Your task to perform on an android device: turn off translation in the chrome app Image 0: 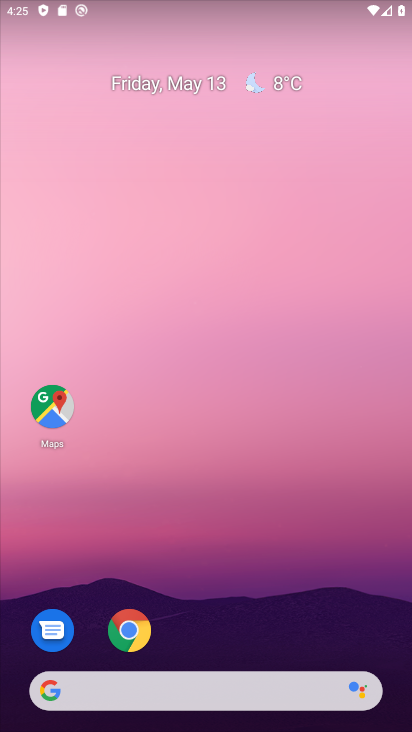
Step 0: click (141, 624)
Your task to perform on an android device: turn off translation in the chrome app Image 1: 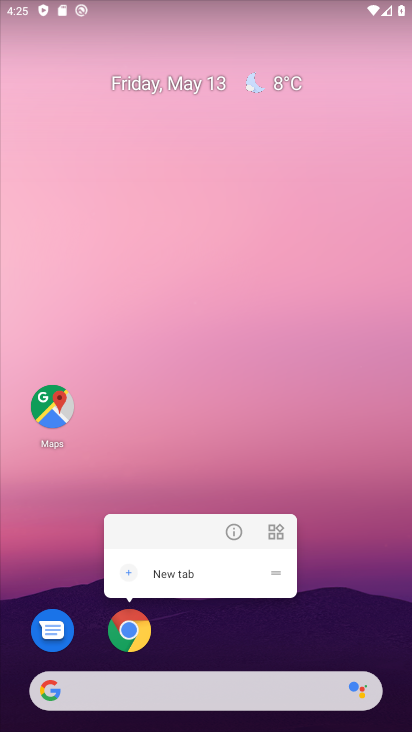
Step 1: click (123, 632)
Your task to perform on an android device: turn off translation in the chrome app Image 2: 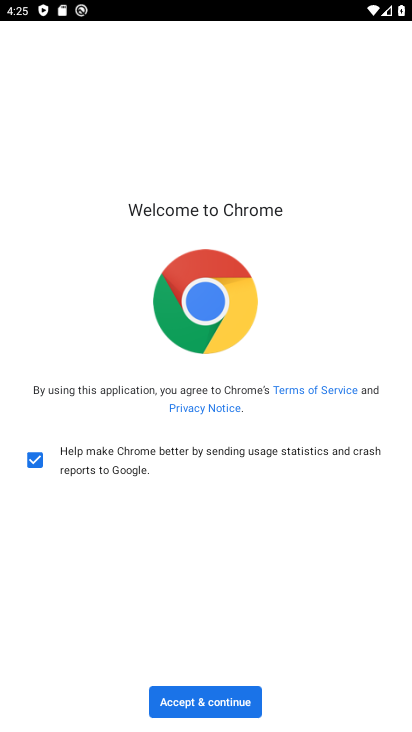
Step 2: click (208, 690)
Your task to perform on an android device: turn off translation in the chrome app Image 3: 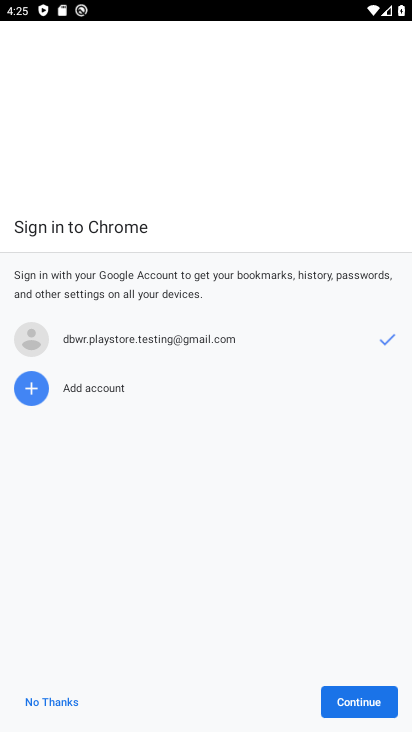
Step 3: click (364, 717)
Your task to perform on an android device: turn off translation in the chrome app Image 4: 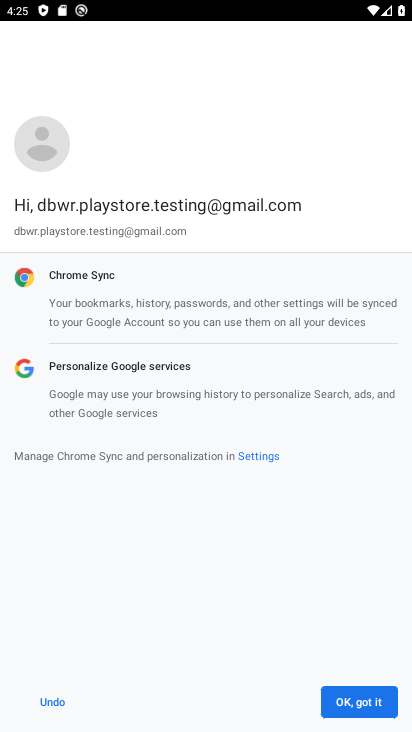
Step 4: click (364, 693)
Your task to perform on an android device: turn off translation in the chrome app Image 5: 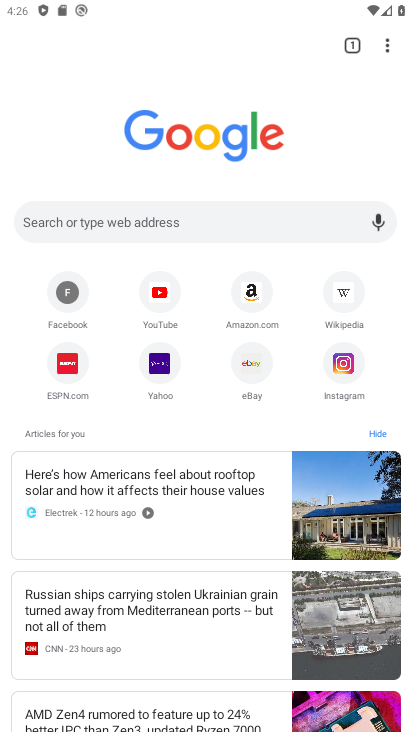
Step 5: drag from (388, 52) to (303, 391)
Your task to perform on an android device: turn off translation in the chrome app Image 6: 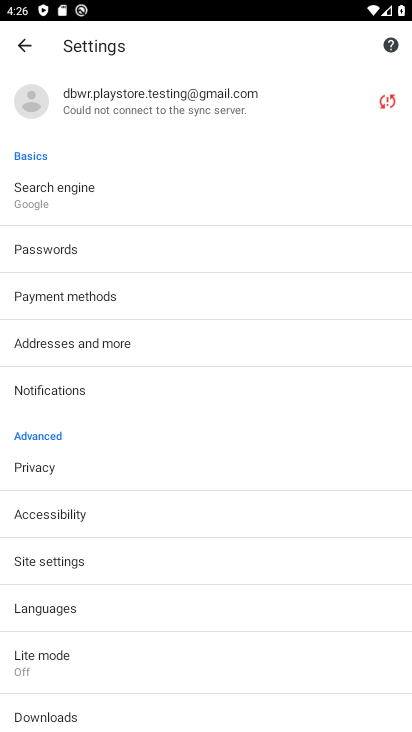
Step 6: click (127, 619)
Your task to perform on an android device: turn off translation in the chrome app Image 7: 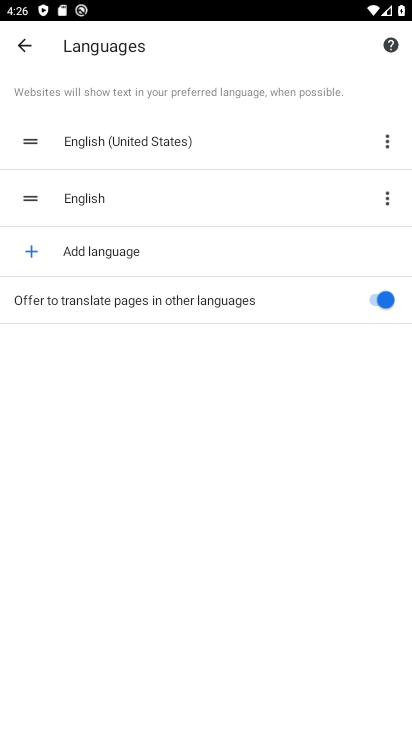
Step 7: click (369, 300)
Your task to perform on an android device: turn off translation in the chrome app Image 8: 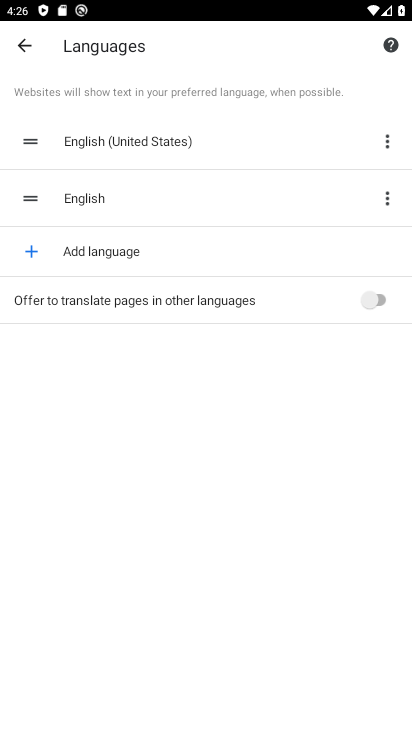
Step 8: task complete